Your task to perform on an android device: delete a single message in the gmail app Image 0: 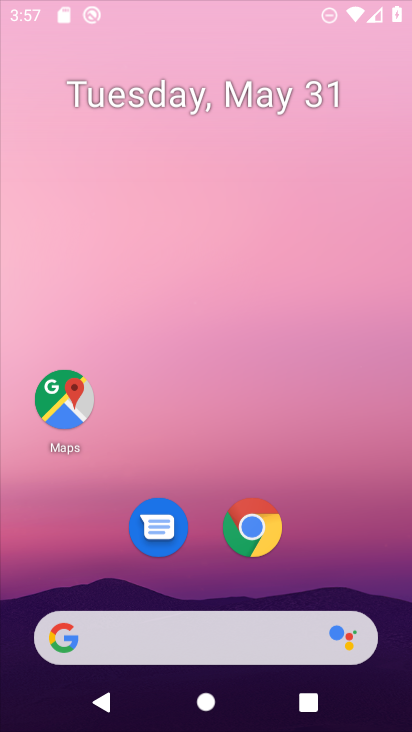
Step 0: drag from (195, 588) to (144, 93)
Your task to perform on an android device: delete a single message in the gmail app Image 1: 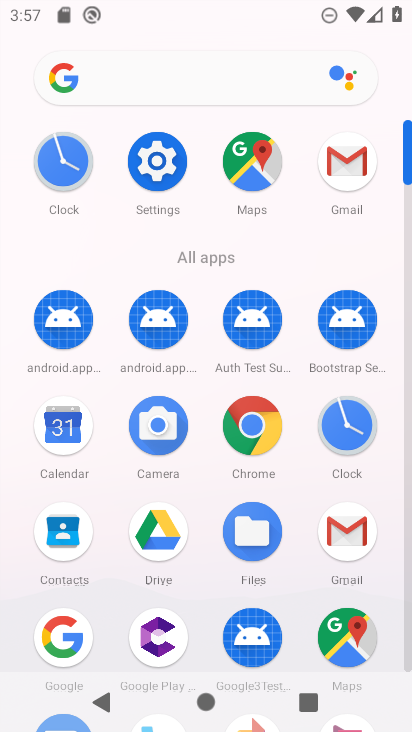
Step 1: click (352, 521)
Your task to perform on an android device: delete a single message in the gmail app Image 2: 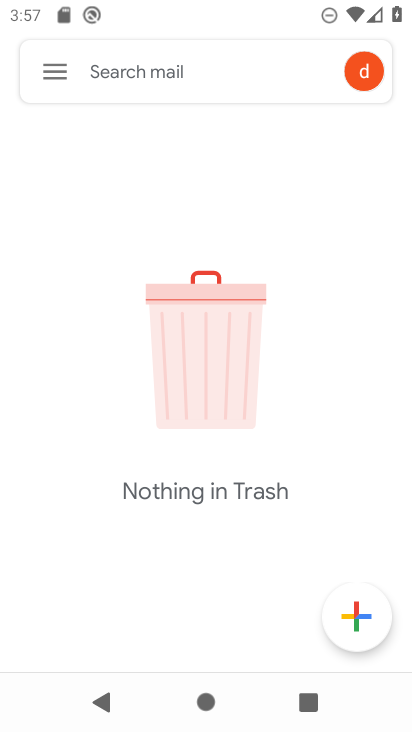
Step 2: click (42, 73)
Your task to perform on an android device: delete a single message in the gmail app Image 3: 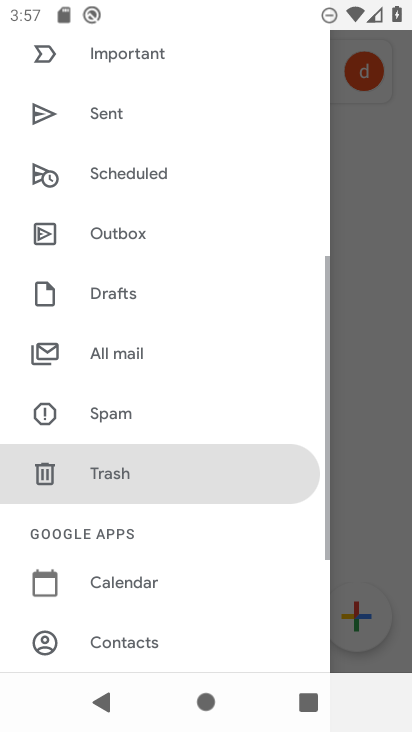
Step 3: task complete